Your task to perform on an android device: check storage Image 0: 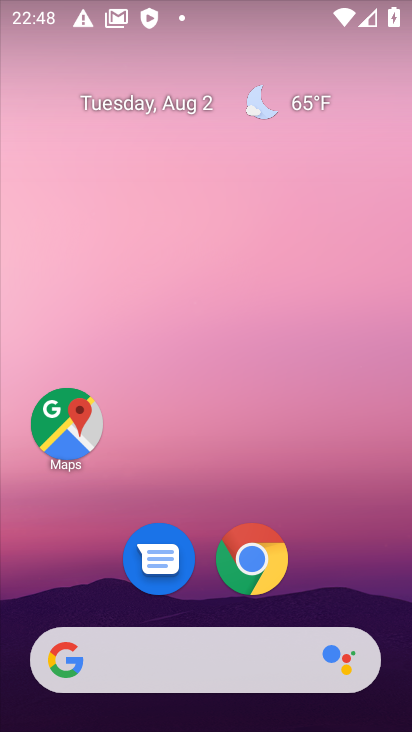
Step 0: drag from (163, 162) to (202, 297)
Your task to perform on an android device: check storage Image 1: 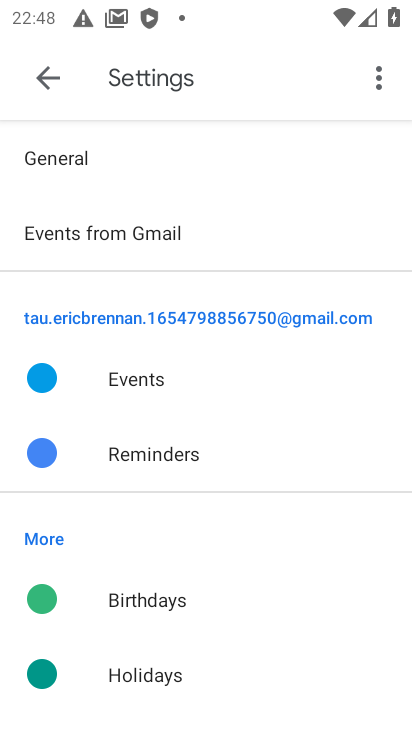
Step 1: click (33, 77)
Your task to perform on an android device: check storage Image 2: 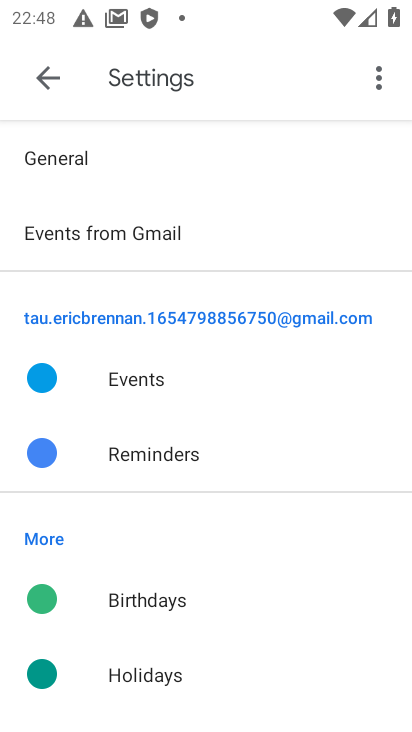
Step 2: click (33, 77)
Your task to perform on an android device: check storage Image 3: 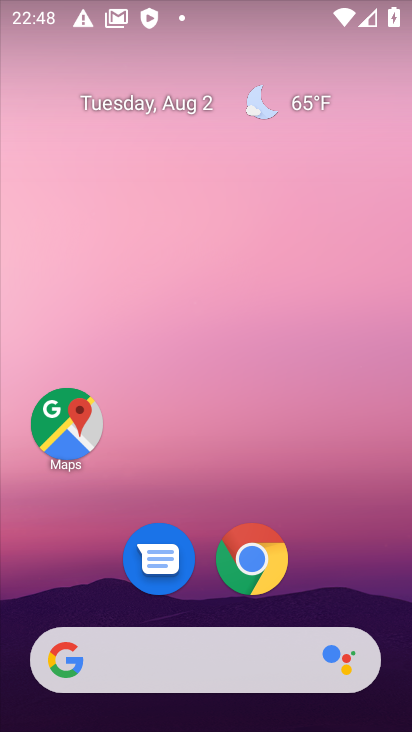
Step 3: drag from (213, 475) to (166, 141)
Your task to perform on an android device: check storage Image 4: 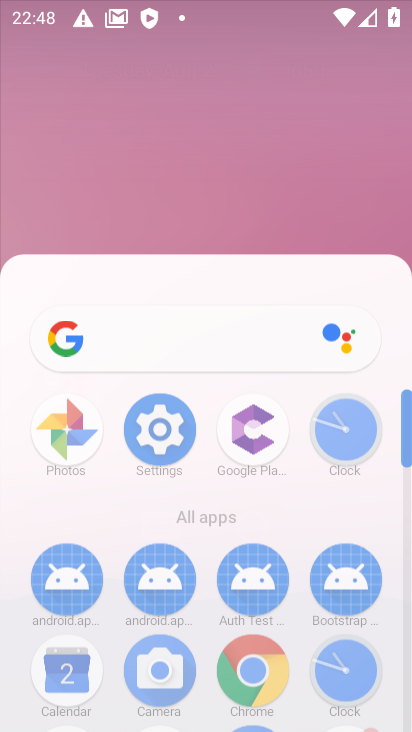
Step 4: drag from (184, 557) to (184, 157)
Your task to perform on an android device: check storage Image 5: 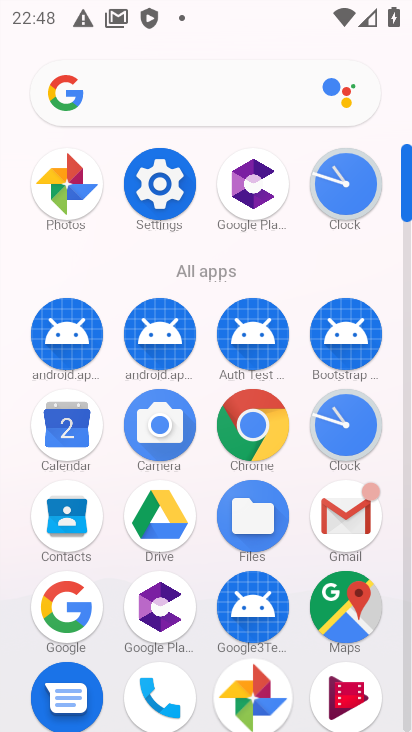
Step 5: drag from (262, 215) to (262, 109)
Your task to perform on an android device: check storage Image 6: 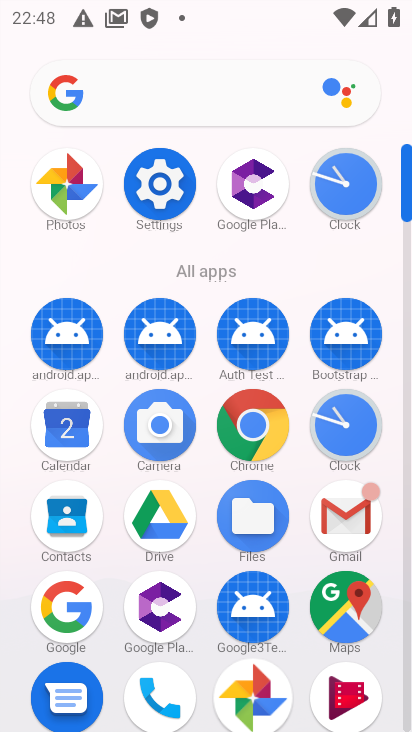
Step 6: click (158, 179)
Your task to perform on an android device: check storage Image 7: 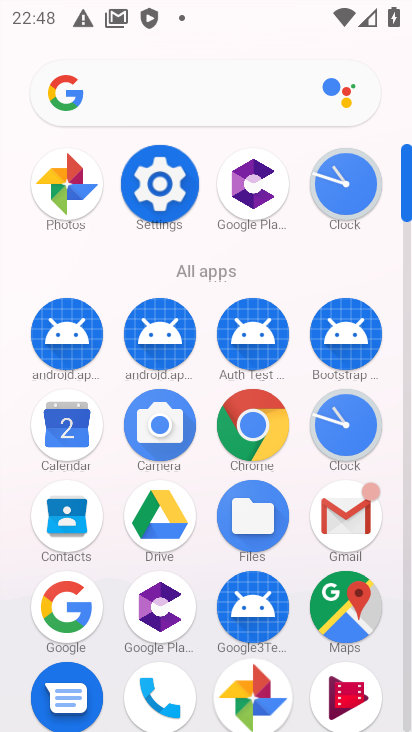
Step 7: click (158, 179)
Your task to perform on an android device: check storage Image 8: 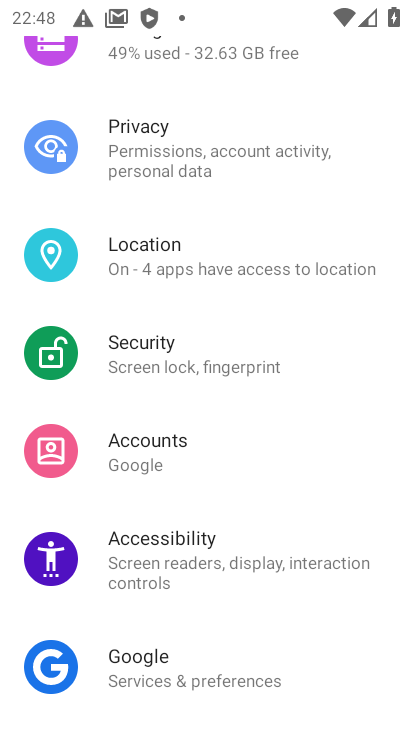
Step 8: click (158, 179)
Your task to perform on an android device: check storage Image 9: 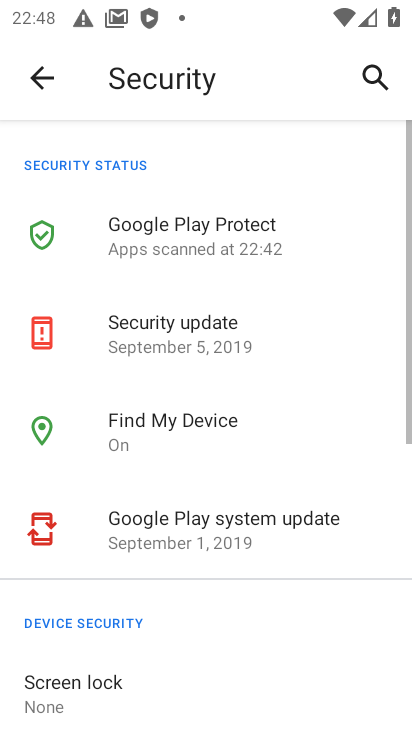
Step 9: click (31, 64)
Your task to perform on an android device: check storage Image 10: 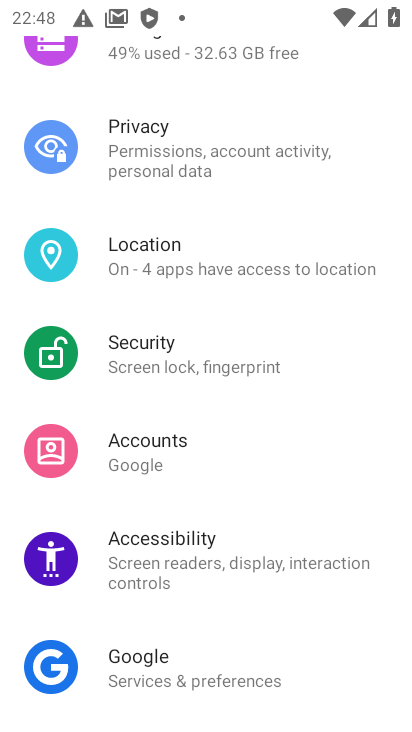
Step 10: drag from (165, 166) to (184, 542)
Your task to perform on an android device: check storage Image 11: 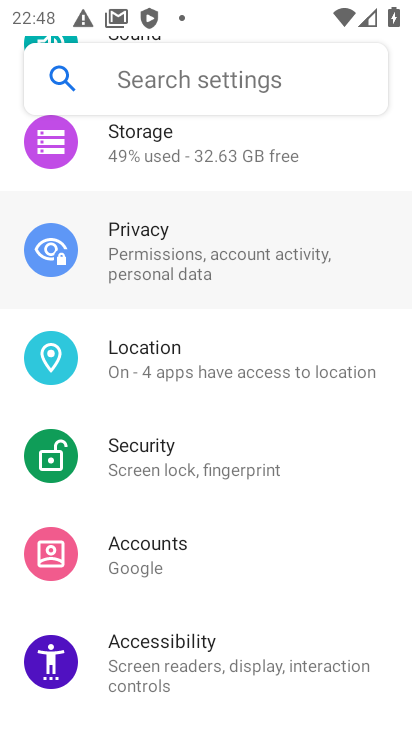
Step 11: drag from (161, 216) to (169, 483)
Your task to perform on an android device: check storage Image 12: 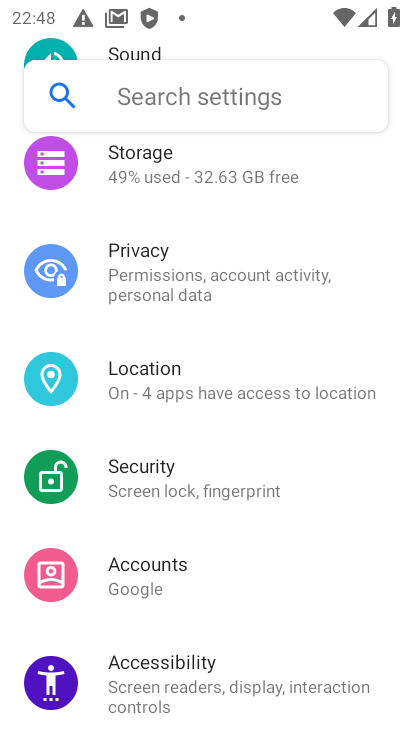
Step 12: click (144, 151)
Your task to perform on an android device: check storage Image 13: 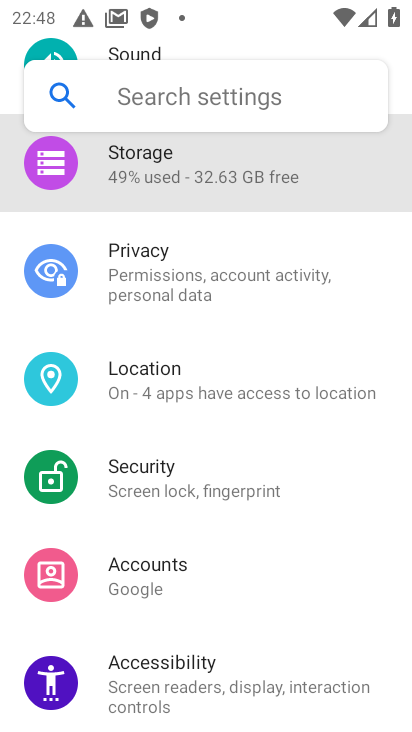
Step 13: click (143, 150)
Your task to perform on an android device: check storage Image 14: 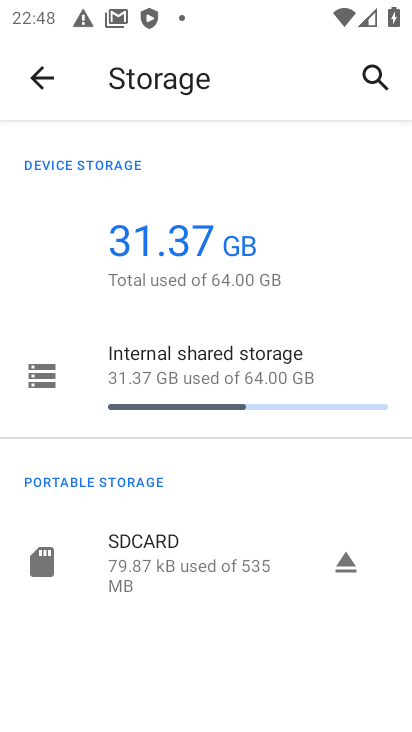
Step 14: click (142, 150)
Your task to perform on an android device: check storage Image 15: 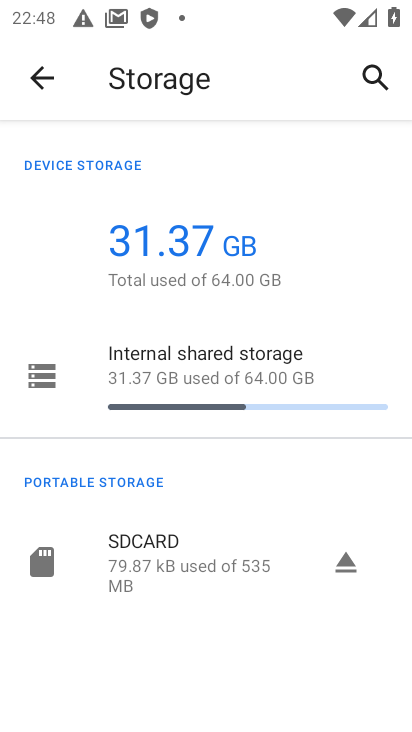
Step 15: task complete